Your task to perform on an android device: Go to accessibility settings Image 0: 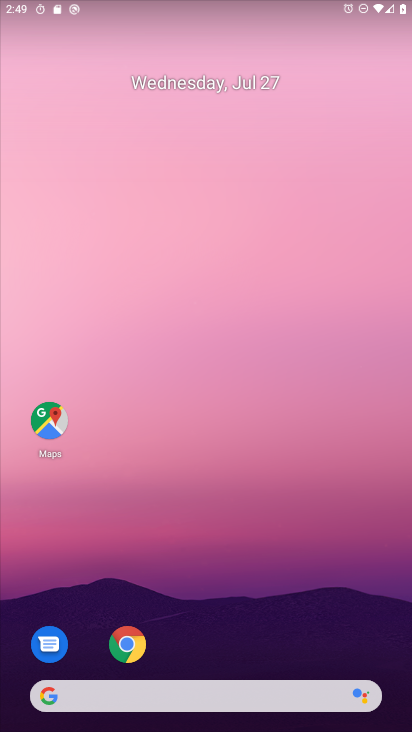
Step 0: drag from (189, 545) to (297, 48)
Your task to perform on an android device: Go to accessibility settings Image 1: 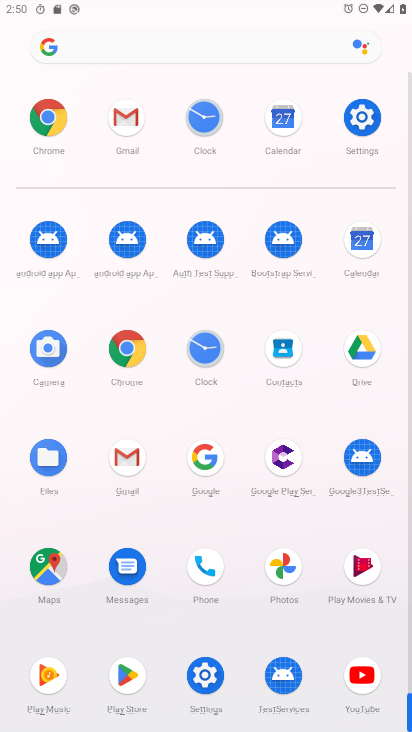
Step 1: click (195, 686)
Your task to perform on an android device: Go to accessibility settings Image 2: 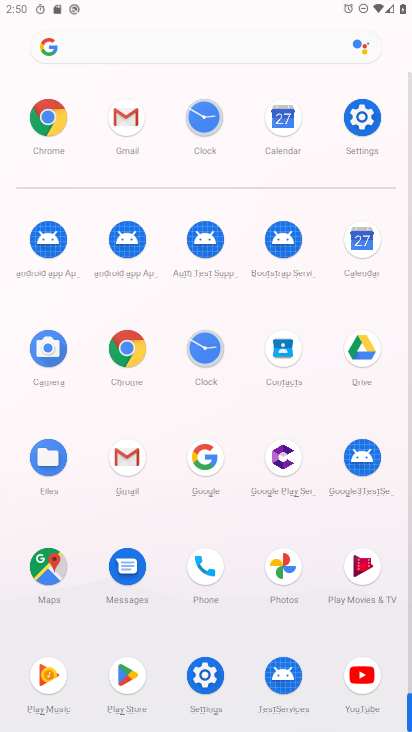
Step 2: click (196, 685)
Your task to perform on an android device: Go to accessibility settings Image 3: 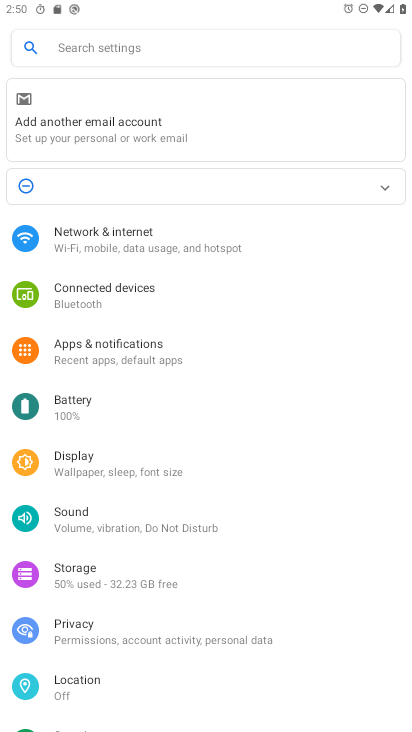
Step 3: drag from (134, 614) to (231, 352)
Your task to perform on an android device: Go to accessibility settings Image 4: 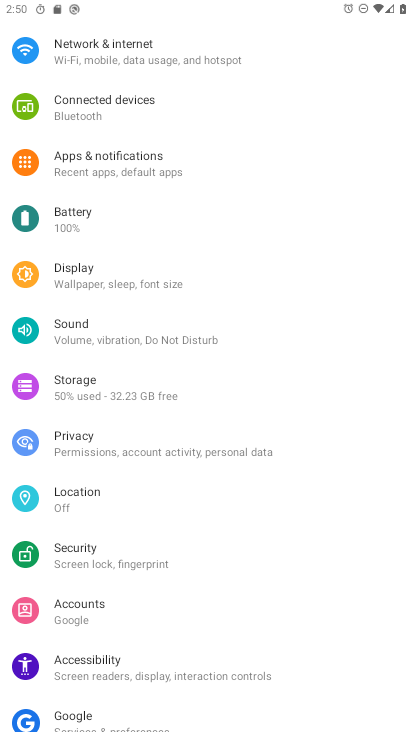
Step 4: drag from (153, 593) to (210, 378)
Your task to perform on an android device: Go to accessibility settings Image 5: 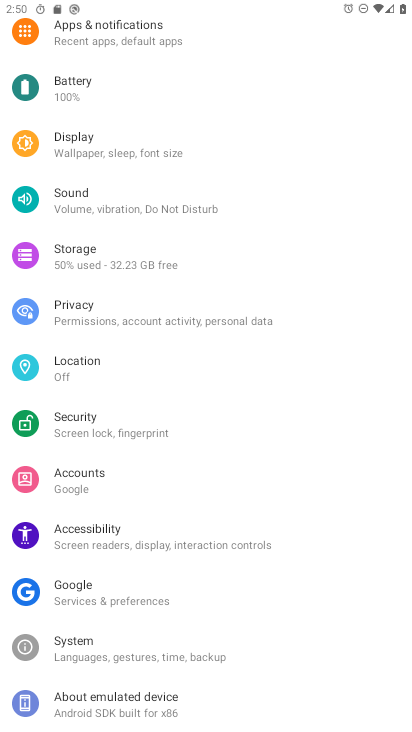
Step 5: click (134, 522)
Your task to perform on an android device: Go to accessibility settings Image 6: 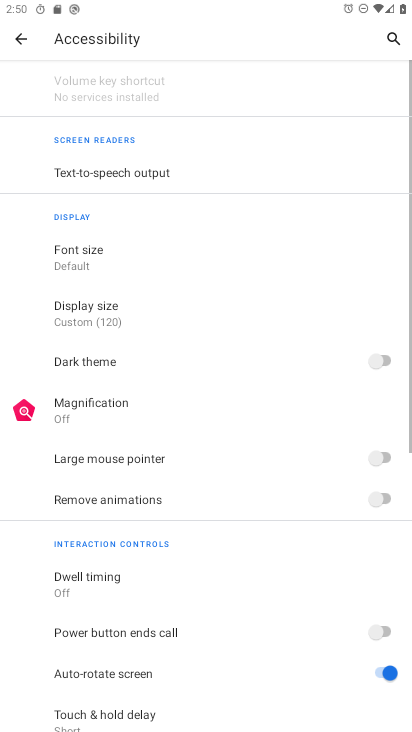
Step 6: task complete